Your task to perform on an android device: Open Chrome and go to settings Image 0: 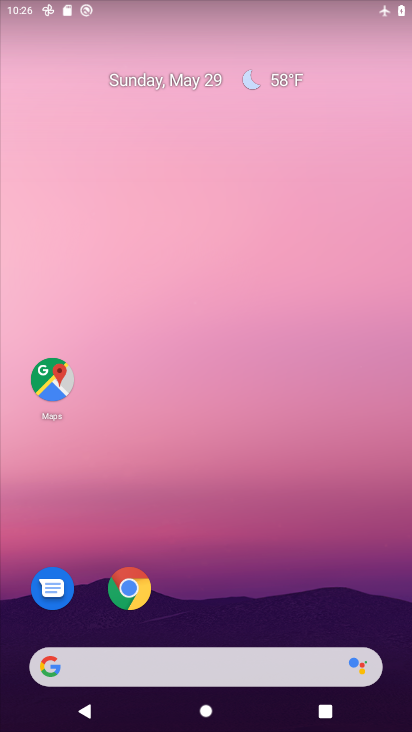
Step 0: drag from (278, 691) to (171, 184)
Your task to perform on an android device: Open Chrome and go to settings Image 1: 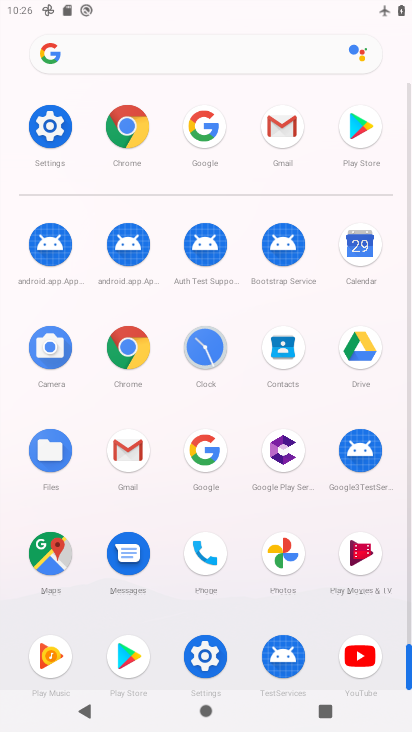
Step 1: click (49, 128)
Your task to perform on an android device: Open Chrome and go to settings Image 2: 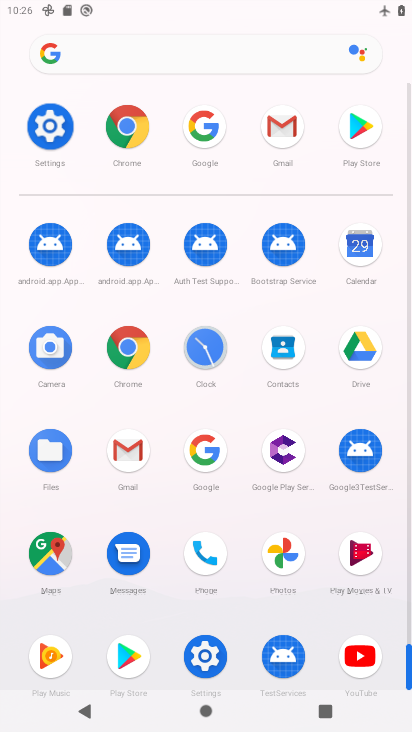
Step 2: click (50, 145)
Your task to perform on an android device: Open Chrome and go to settings Image 3: 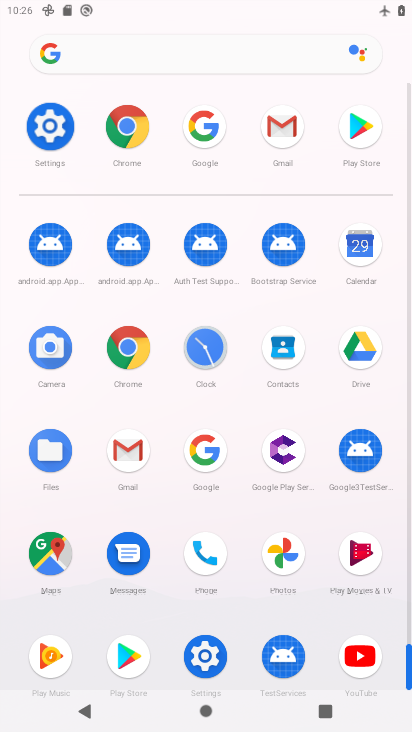
Step 3: click (48, 151)
Your task to perform on an android device: Open Chrome and go to settings Image 4: 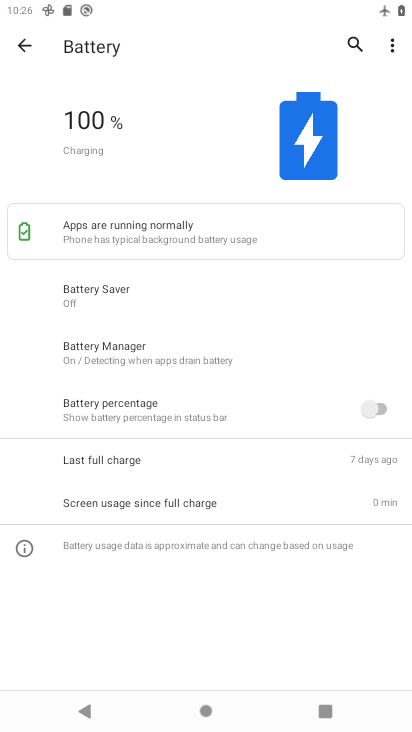
Step 4: press back button
Your task to perform on an android device: Open Chrome and go to settings Image 5: 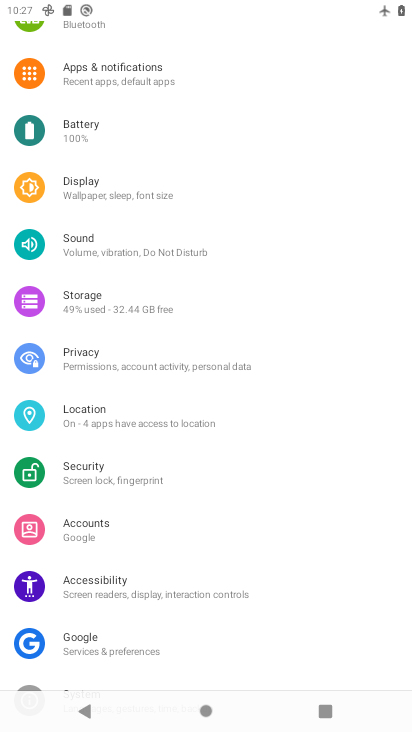
Step 5: drag from (68, 180) to (149, 580)
Your task to perform on an android device: Open Chrome and go to settings Image 6: 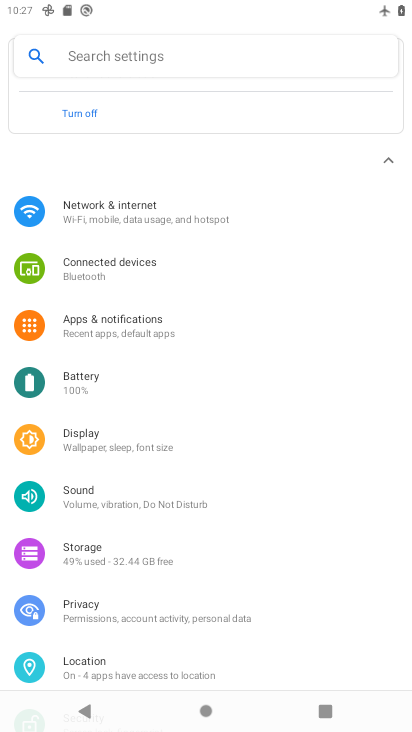
Step 6: drag from (109, 195) to (130, 548)
Your task to perform on an android device: Open Chrome and go to settings Image 7: 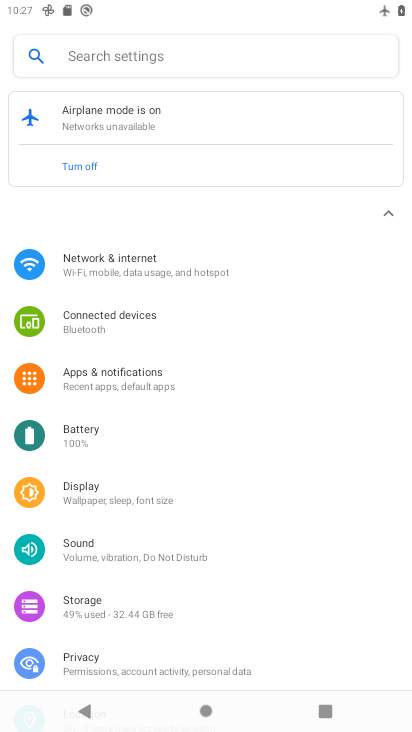
Step 7: drag from (80, 510) to (80, 338)
Your task to perform on an android device: Open Chrome and go to settings Image 8: 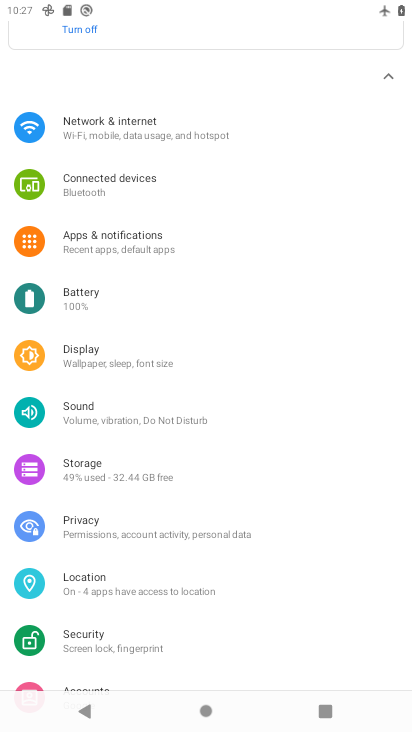
Step 8: drag from (117, 565) to (118, 247)
Your task to perform on an android device: Open Chrome and go to settings Image 9: 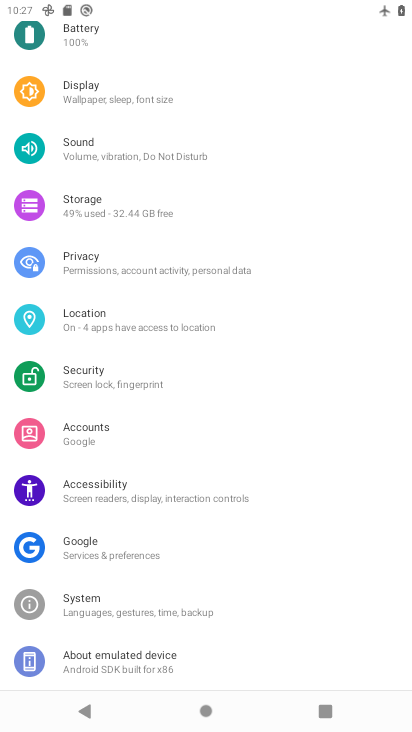
Step 9: press back button
Your task to perform on an android device: Open Chrome and go to settings Image 10: 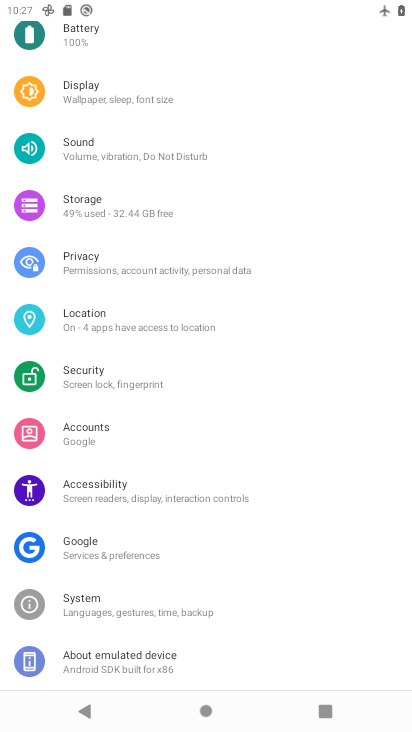
Step 10: press back button
Your task to perform on an android device: Open Chrome and go to settings Image 11: 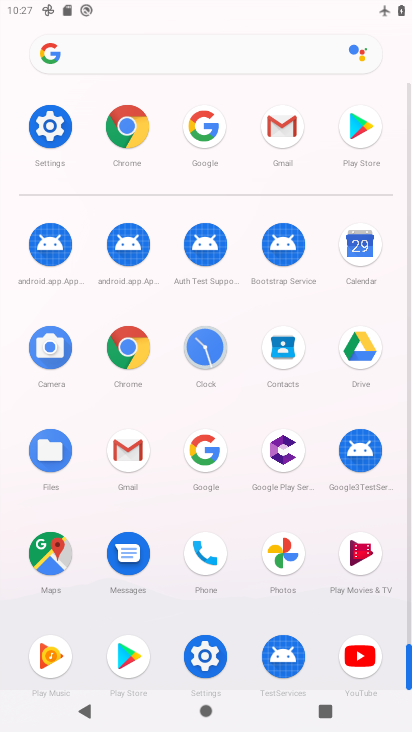
Step 11: press back button
Your task to perform on an android device: Open Chrome and go to settings Image 12: 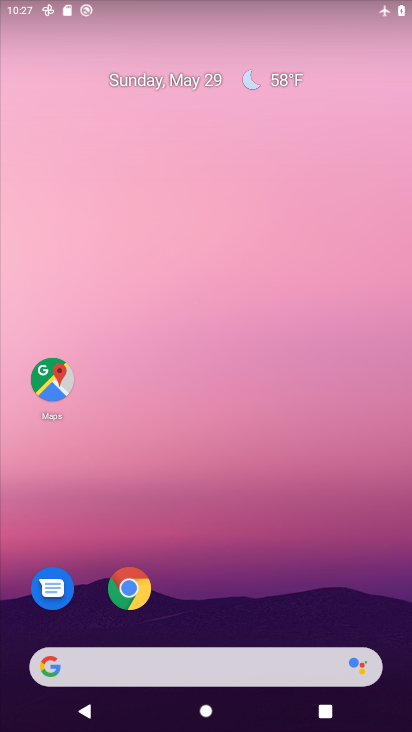
Step 12: drag from (242, 567) to (157, 193)
Your task to perform on an android device: Open Chrome and go to settings Image 13: 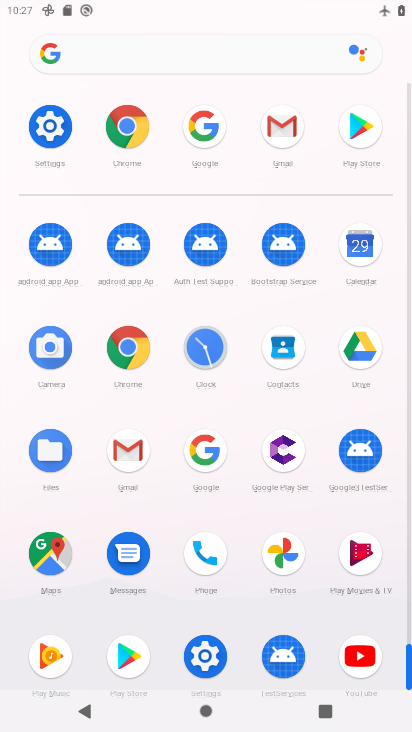
Step 13: click (37, 114)
Your task to perform on an android device: Open Chrome and go to settings Image 14: 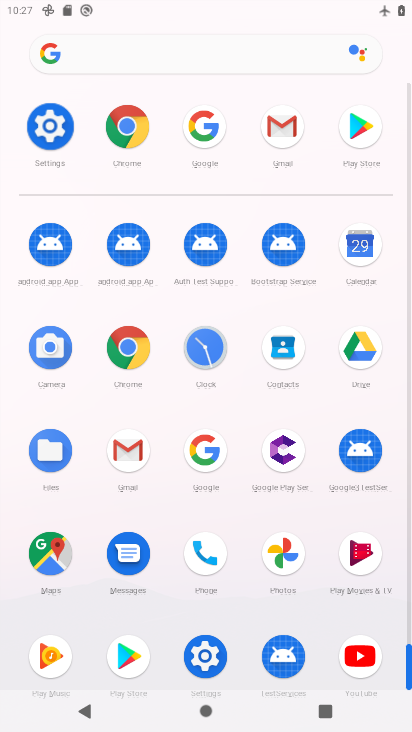
Step 14: click (38, 115)
Your task to perform on an android device: Open Chrome and go to settings Image 15: 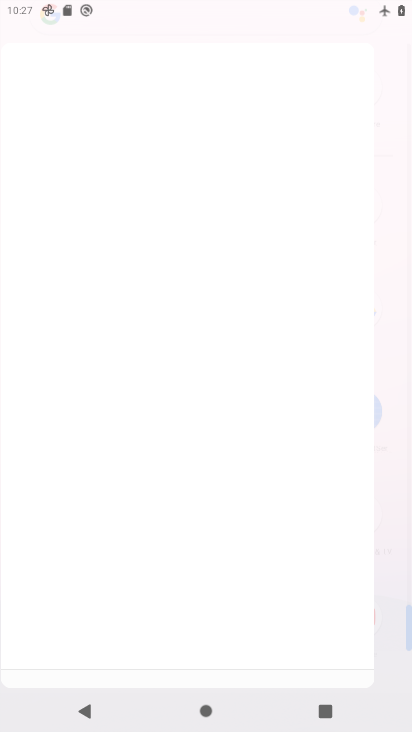
Step 15: click (38, 115)
Your task to perform on an android device: Open Chrome and go to settings Image 16: 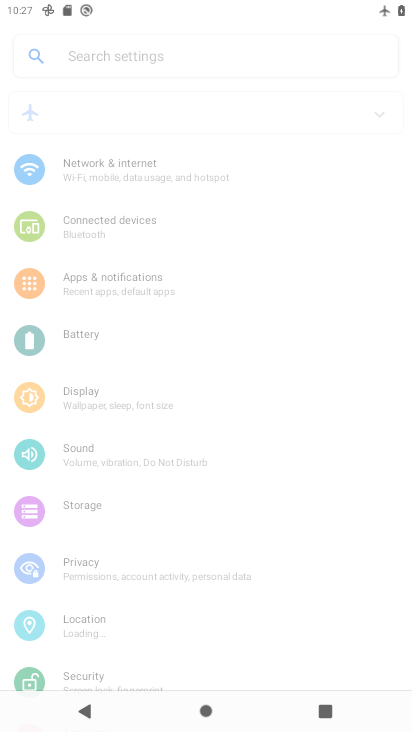
Step 16: click (39, 115)
Your task to perform on an android device: Open Chrome and go to settings Image 17: 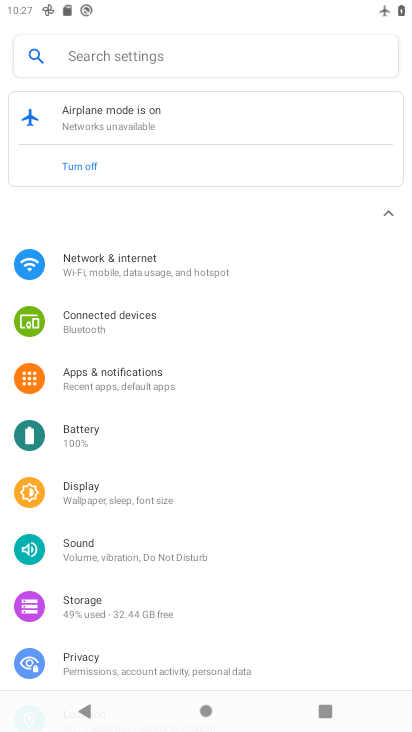
Step 17: press home button
Your task to perform on an android device: Open Chrome and go to settings Image 18: 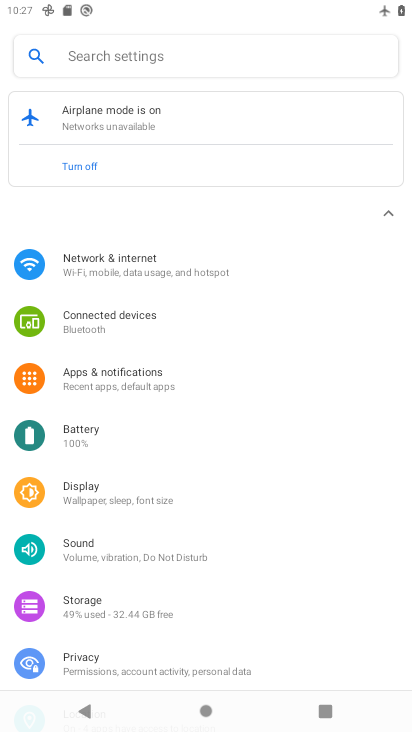
Step 18: press home button
Your task to perform on an android device: Open Chrome and go to settings Image 19: 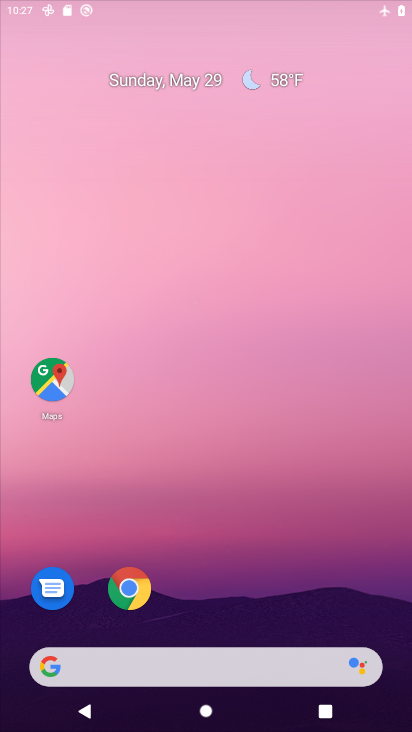
Step 19: press home button
Your task to perform on an android device: Open Chrome and go to settings Image 20: 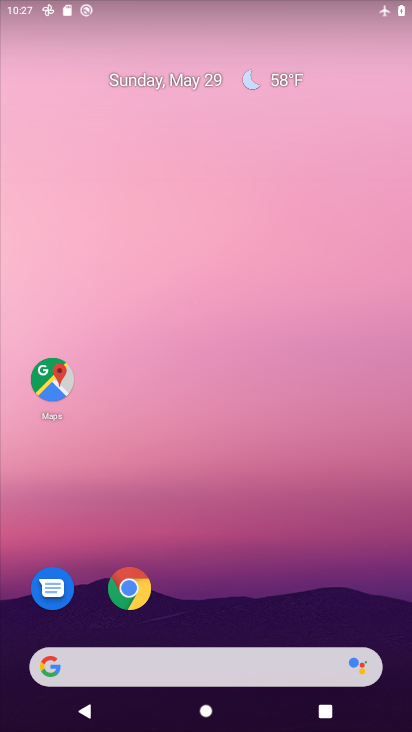
Step 20: drag from (277, 687) to (220, 157)
Your task to perform on an android device: Open Chrome and go to settings Image 21: 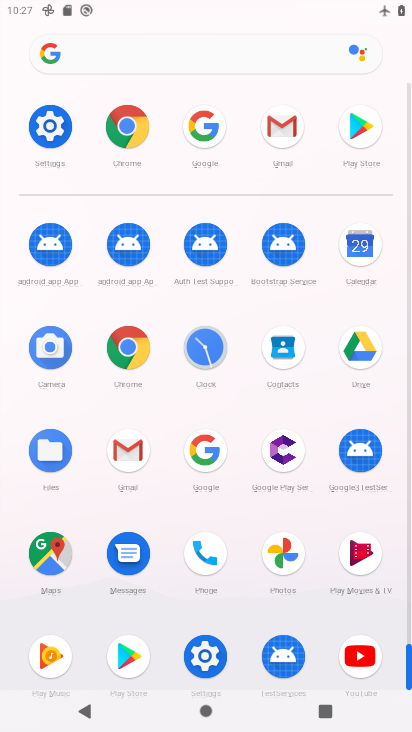
Step 21: click (128, 135)
Your task to perform on an android device: Open Chrome and go to settings Image 22: 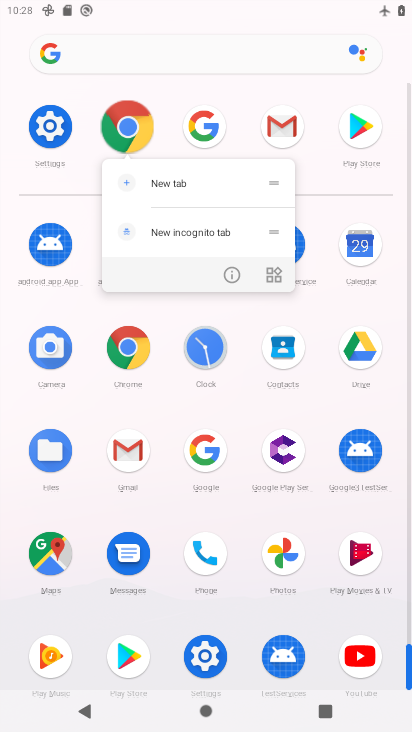
Step 22: click (133, 131)
Your task to perform on an android device: Open Chrome and go to settings Image 23: 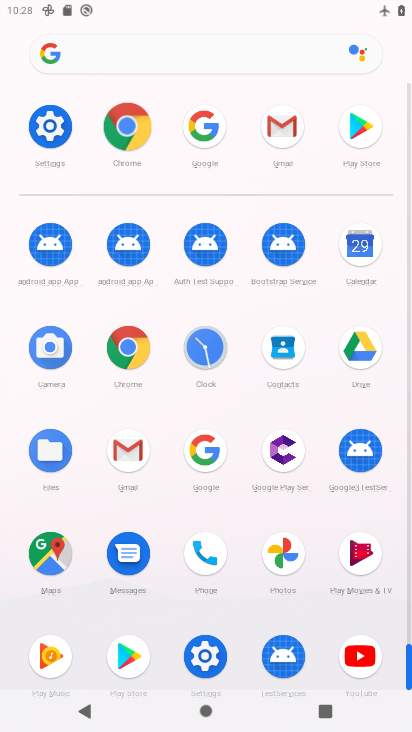
Step 23: click (134, 130)
Your task to perform on an android device: Open Chrome and go to settings Image 24: 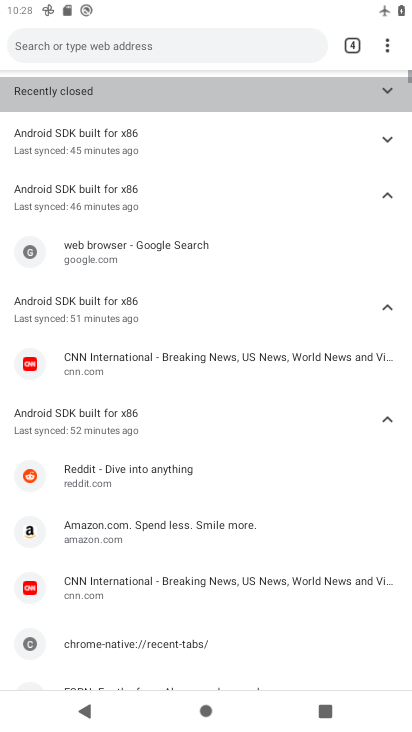
Step 24: click (134, 130)
Your task to perform on an android device: Open Chrome and go to settings Image 25: 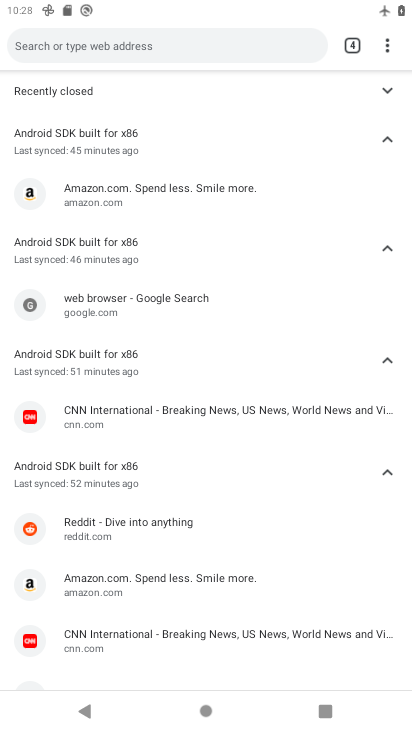
Step 25: drag from (388, 41) to (214, 381)
Your task to perform on an android device: Open Chrome and go to settings Image 26: 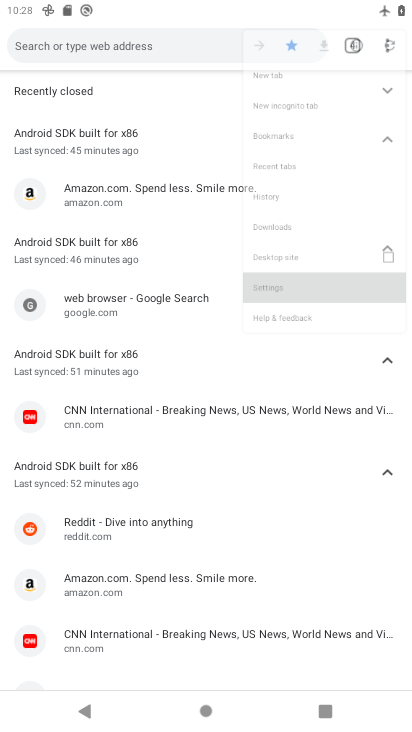
Step 26: click (214, 384)
Your task to perform on an android device: Open Chrome and go to settings Image 27: 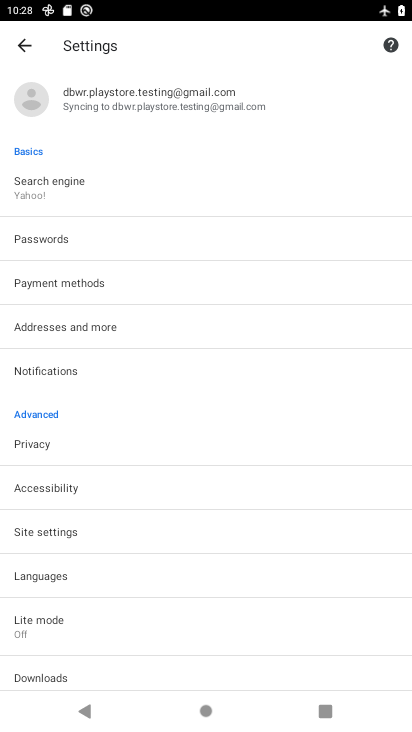
Step 27: task complete